Your task to perform on an android device: turn off picture-in-picture Image 0: 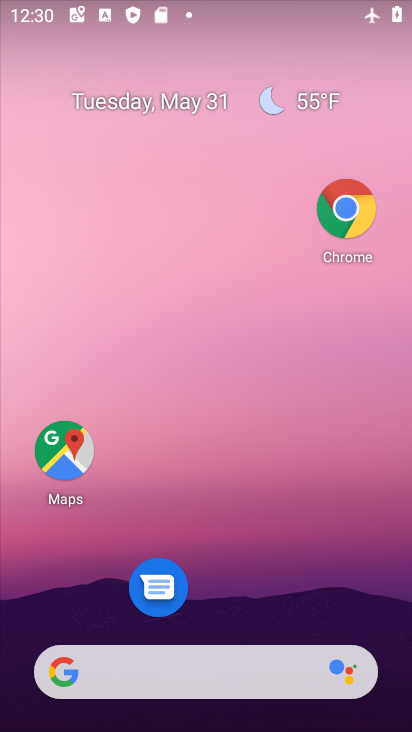
Step 0: click (362, 213)
Your task to perform on an android device: turn off picture-in-picture Image 1: 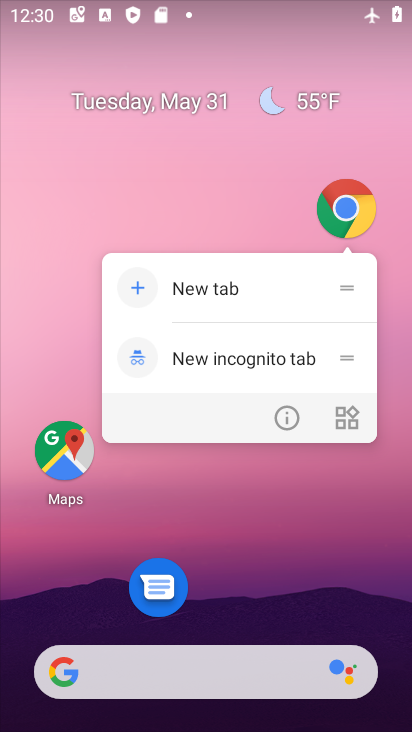
Step 1: click (282, 424)
Your task to perform on an android device: turn off picture-in-picture Image 2: 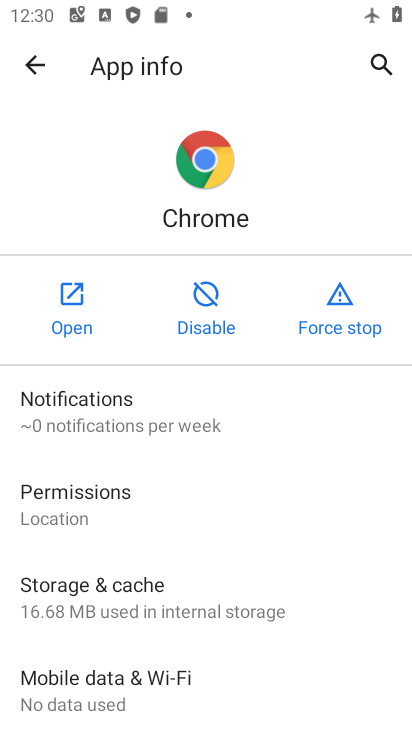
Step 2: drag from (209, 586) to (290, 34)
Your task to perform on an android device: turn off picture-in-picture Image 3: 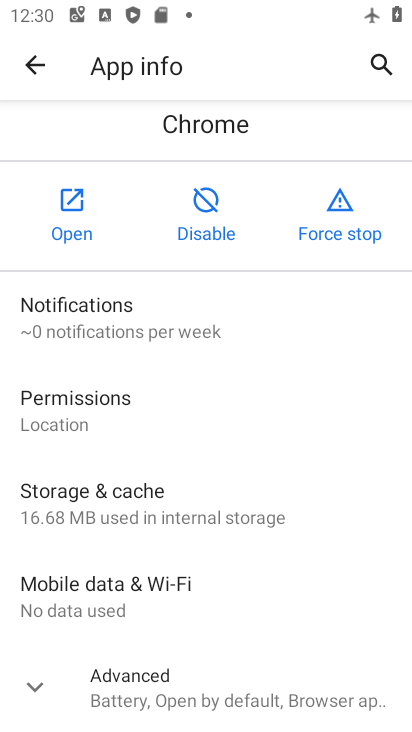
Step 3: click (174, 685)
Your task to perform on an android device: turn off picture-in-picture Image 4: 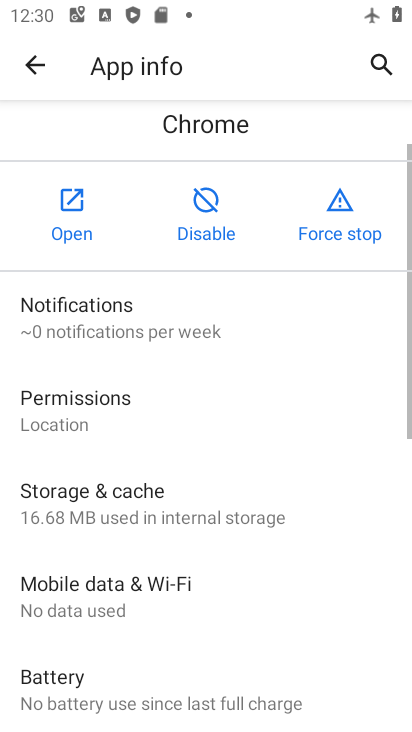
Step 4: drag from (174, 685) to (236, 167)
Your task to perform on an android device: turn off picture-in-picture Image 5: 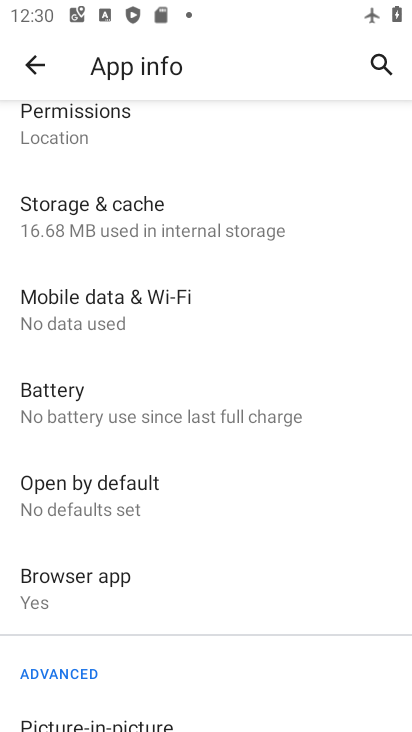
Step 5: drag from (142, 630) to (286, 108)
Your task to perform on an android device: turn off picture-in-picture Image 6: 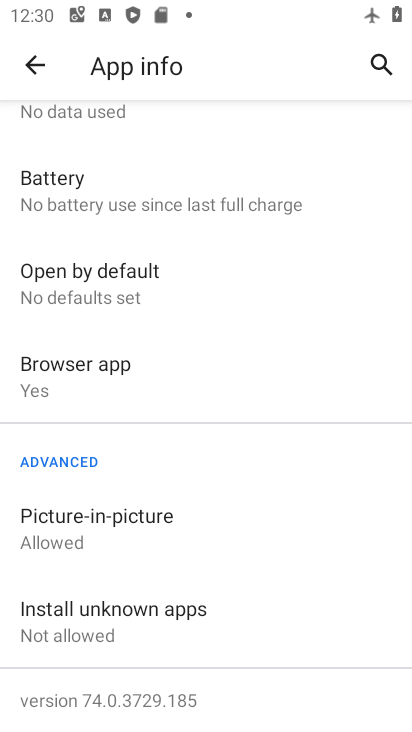
Step 6: click (116, 526)
Your task to perform on an android device: turn off picture-in-picture Image 7: 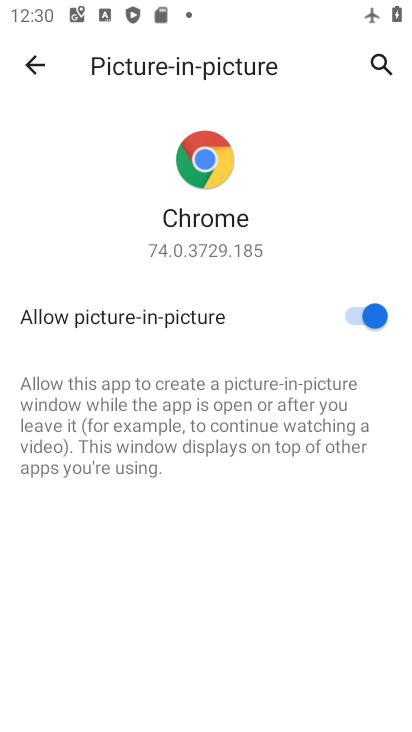
Step 7: click (376, 322)
Your task to perform on an android device: turn off picture-in-picture Image 8: 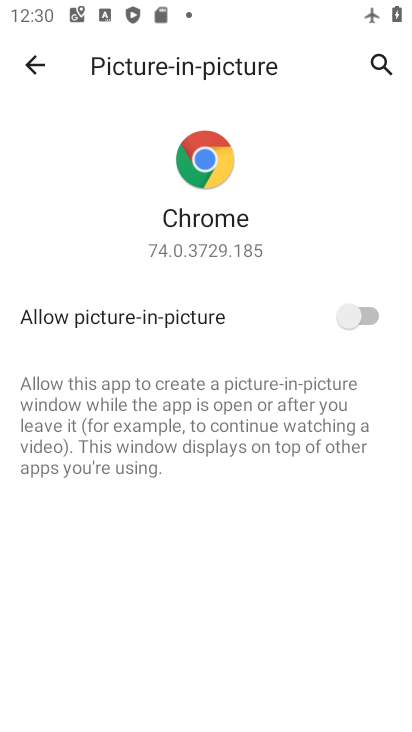
Step 8: task complete